Your task to perform on an android device: turn on showing notifications on the lock screen Image 0: 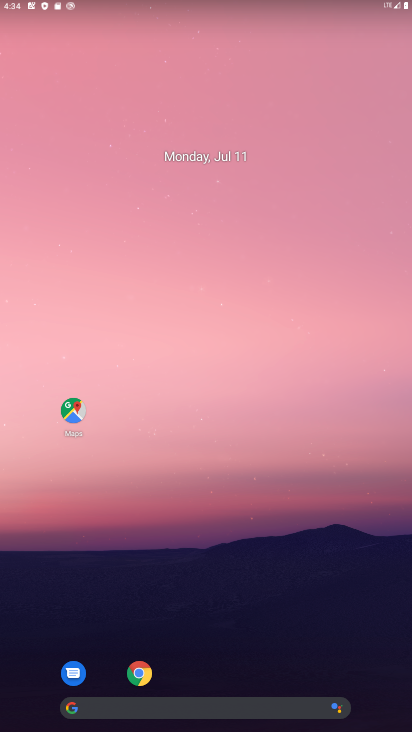
Step 0: drag from (219, 699) to (236, 248)
Your task to perform on an android device: turn on showing notifications on the lock screen Image 1: 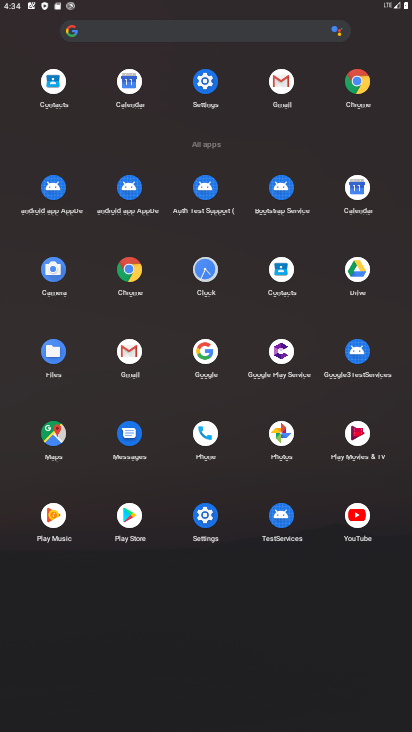
Step 1: click (204, 82)
Your task to perform on an android device: turn on showing notifications on the lock screen Image 2: 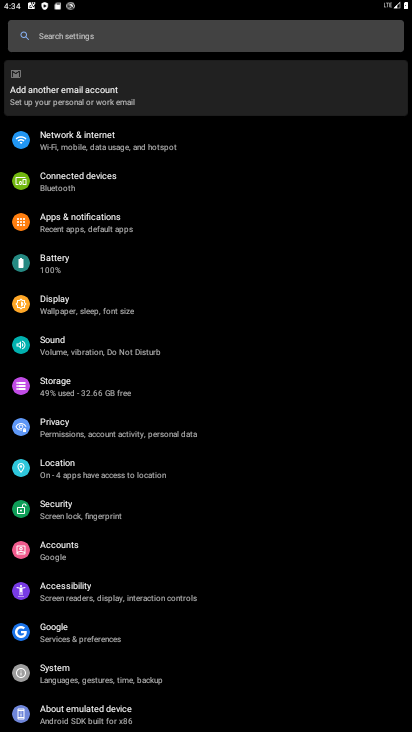
Step 2: click (94, 221)
Your task to perform on an android device: turn on showing notifications on the lock screen Image 3: 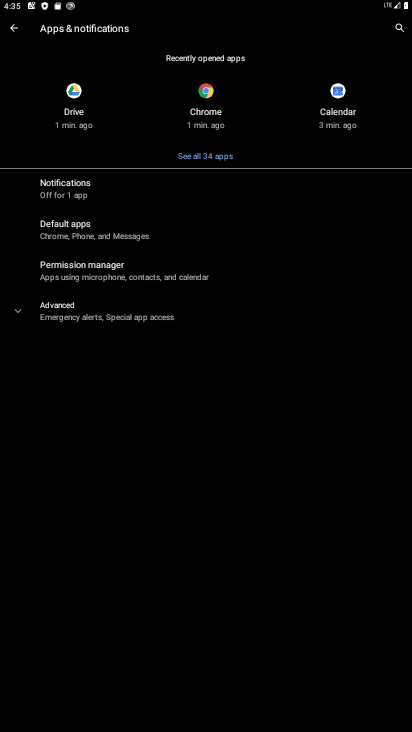
Step 3: click (63, 184)
Your task to perform on an android device: turn on showing notifications on the lock screen Image 4: 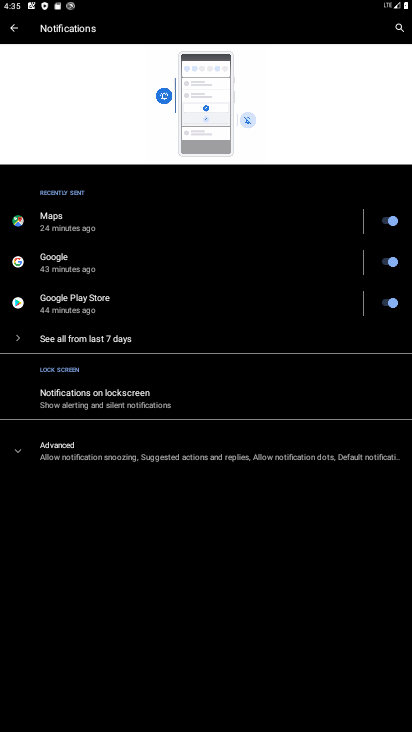
Step 4: click (91, 398)
Your task to perform on an android device: turn on showing notifications on the lock screen Image 5: 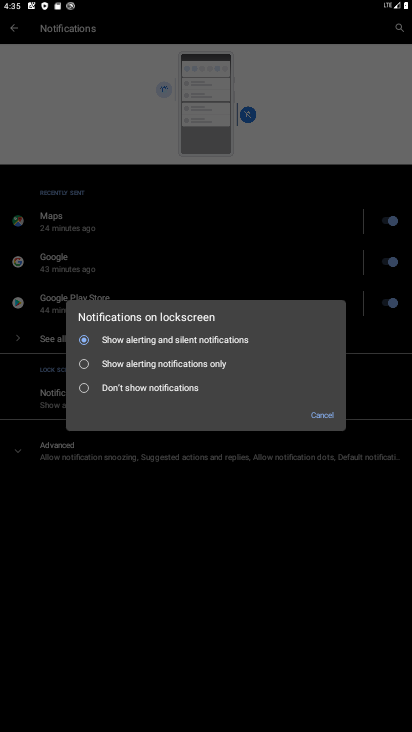
Step 5: click (117, 338)
Your task to perform on an android device: turn on showing notifications on the lock screen Image 6: 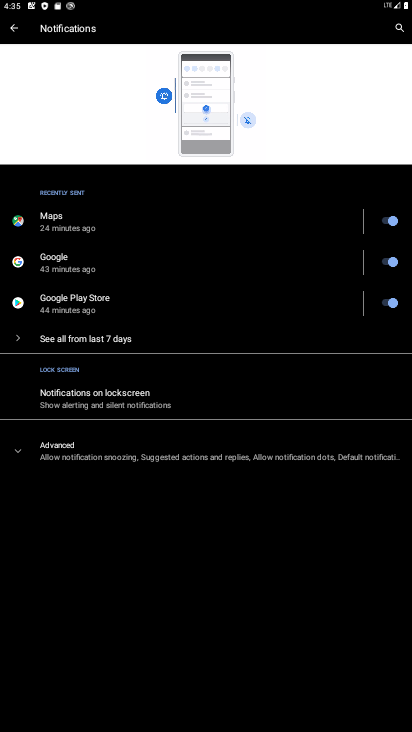
Step 6: task complete